Your task to perform on an android device: turn on data saver in the chrome app Image 0: 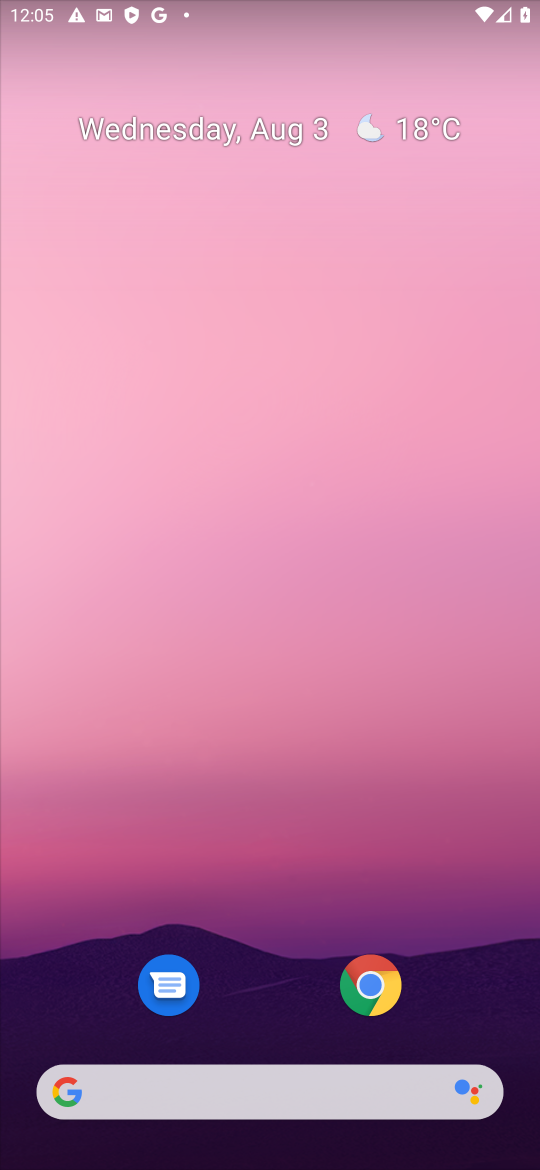
Step 0: click (373, 1000)
Your task to perform on an android device: turn on data saver in the chrome app Image 1: 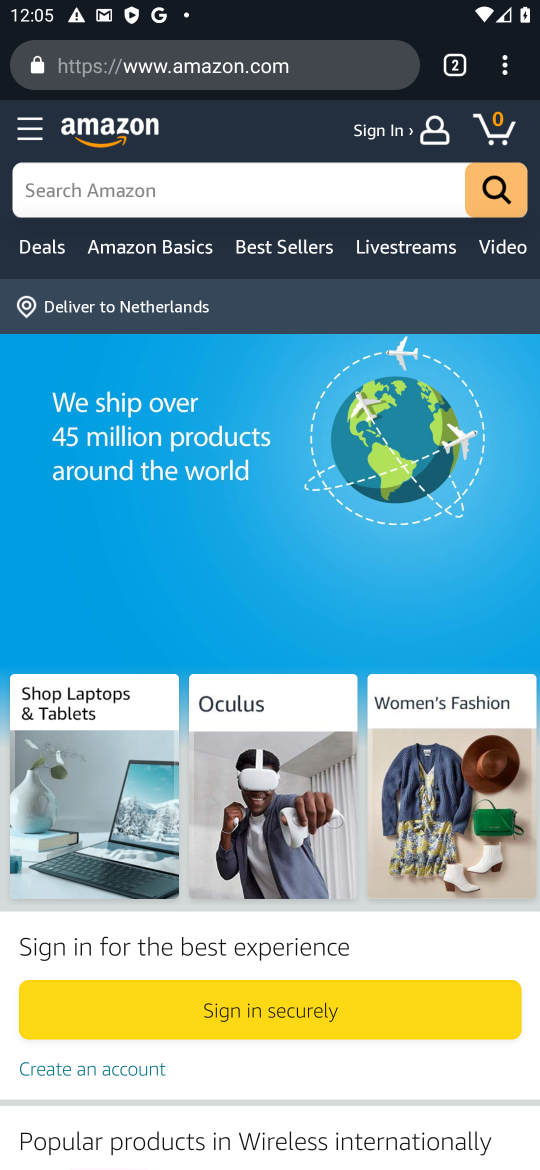
Step 1: click (507, 54)
Your task to perform on an android device: turn on data saver in the chrome app Image 2: 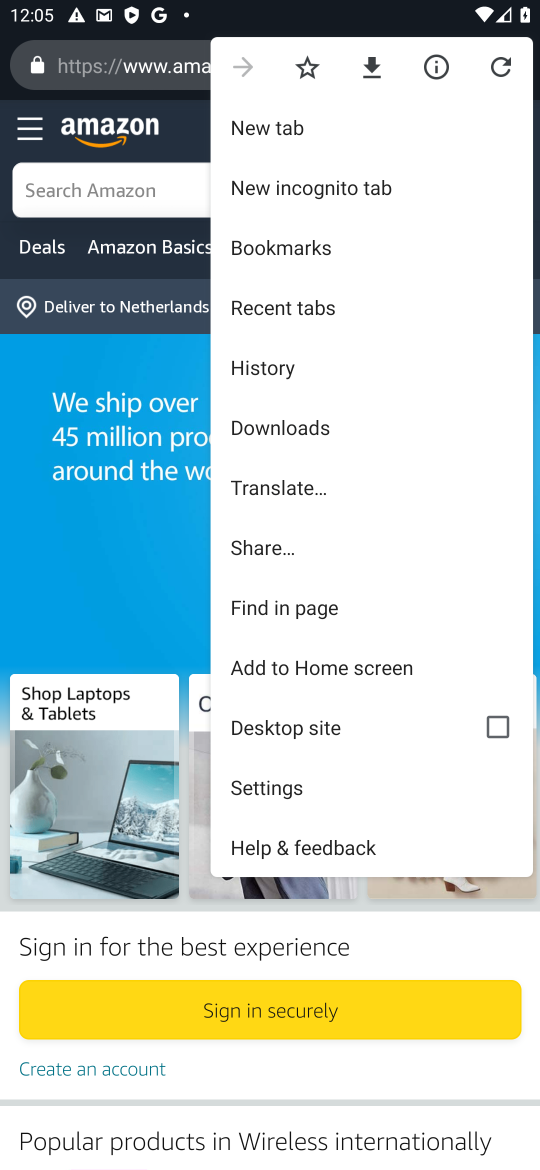
Step 2: click (306, 799)
Your task to perform on an android device: turn on data saver in the chrome app Image 3: 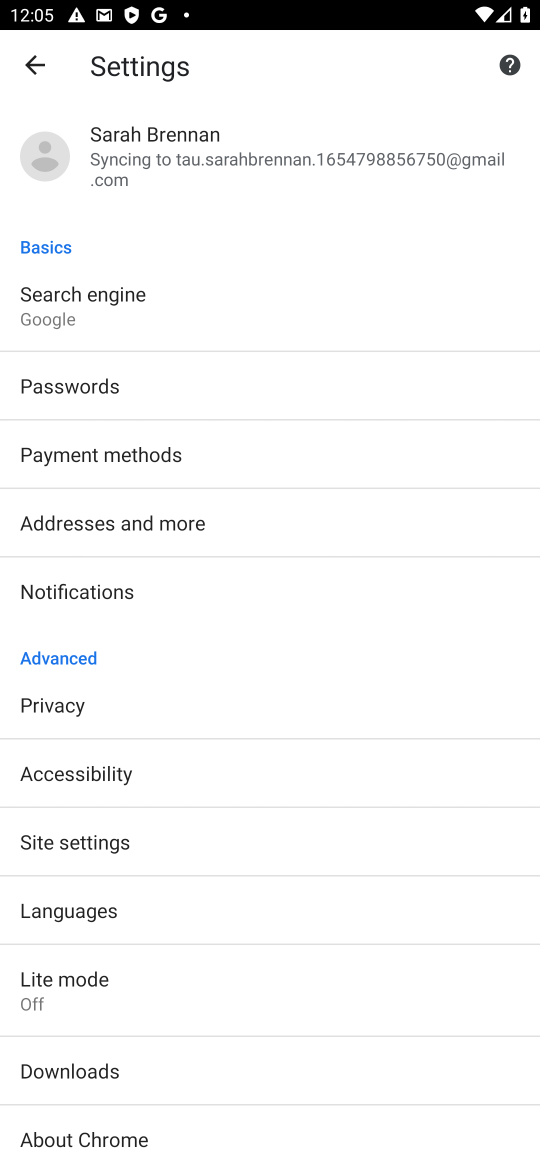
Step 3: drag from (157, 922) to (157, 506)
Your task to perform on an android device: turn on data saver in the chrome app Image 4: 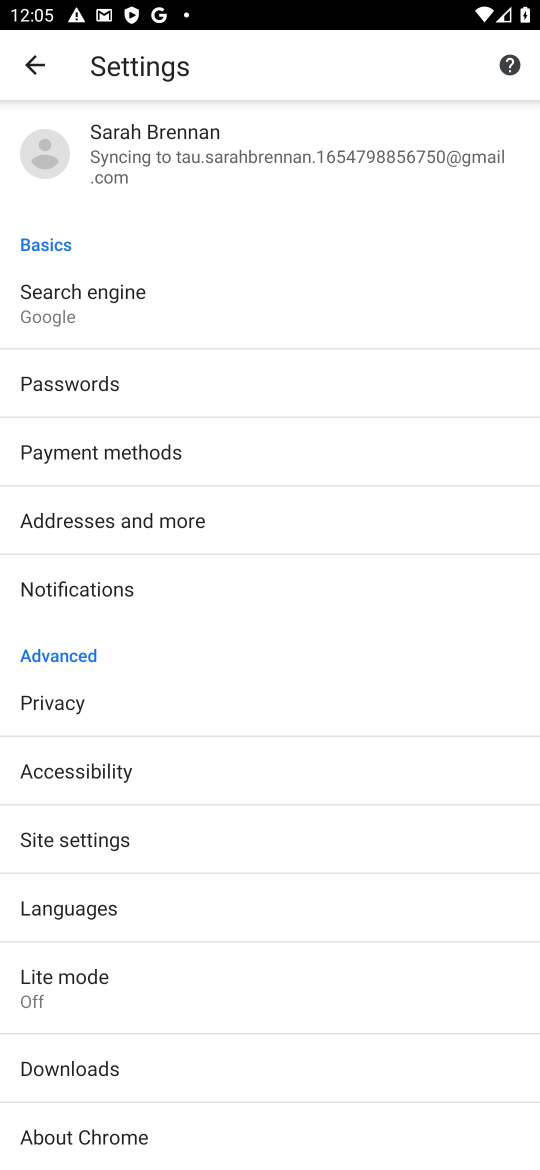
Step 4: click (196, 960)
Your task to perform on an android device: turn on data saver in the chrome app Image 5: 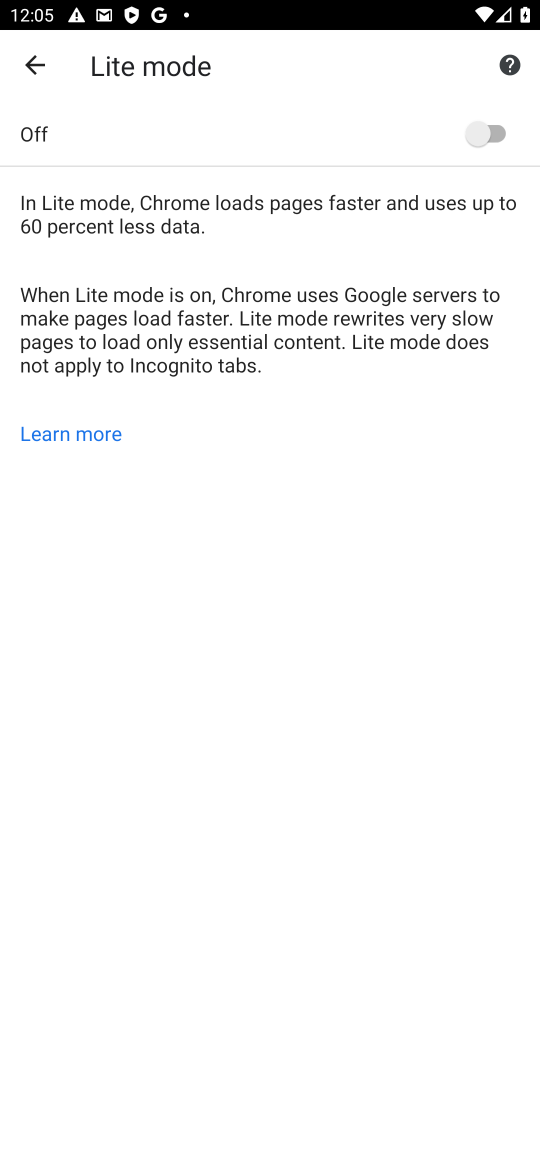
Step 5: click (469, 109)
Your task to perform on an android device: turn on data saver in the chrome app Image 6: 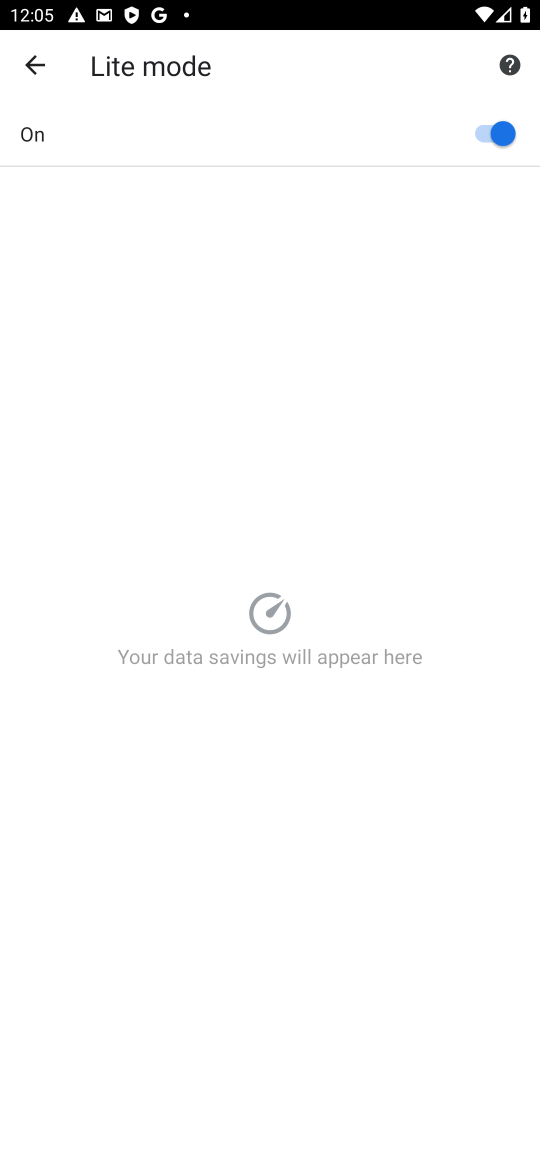
Step 6: task complete